Your task to perform on an android device: What is the capital of Norway? Image 0: 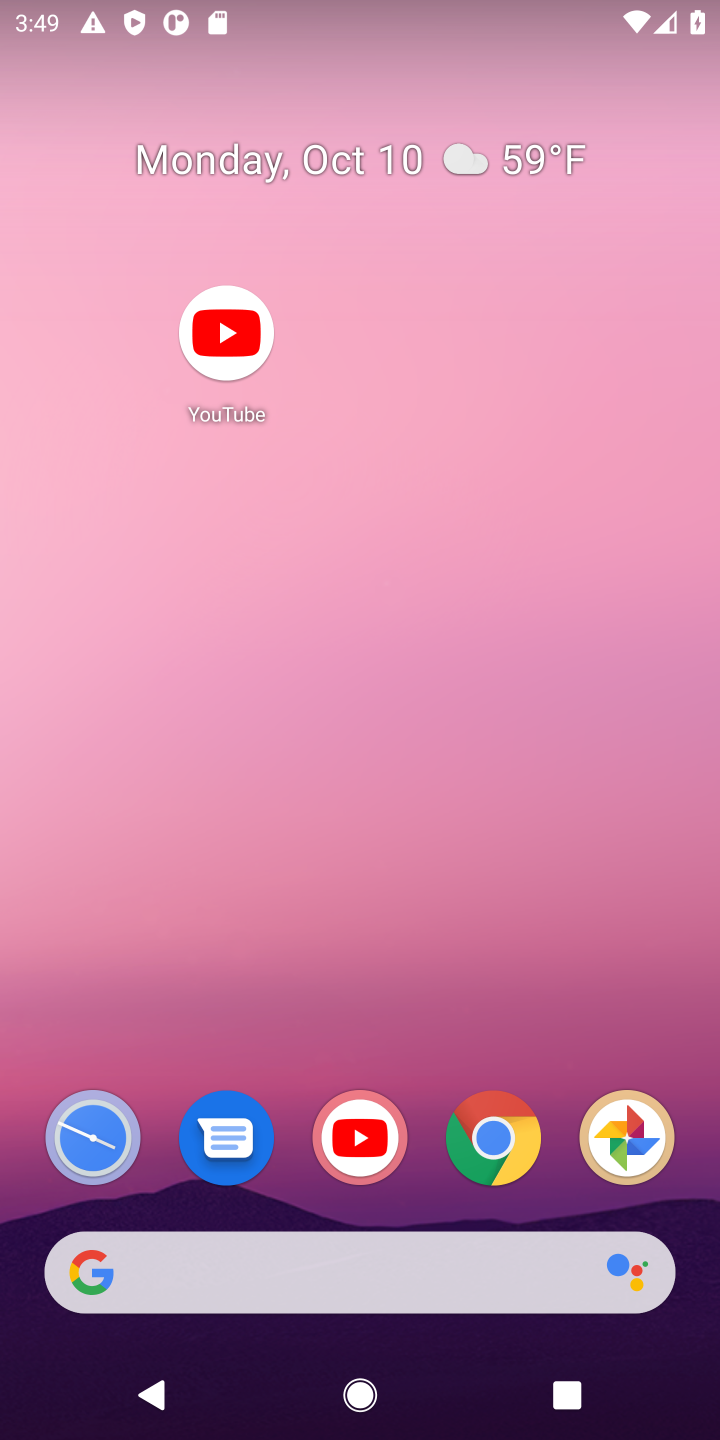
Step 0: drag from (406, 926) to (387, 153)
Your task to perform on an android device: What is the capital of Norway? Image 1: 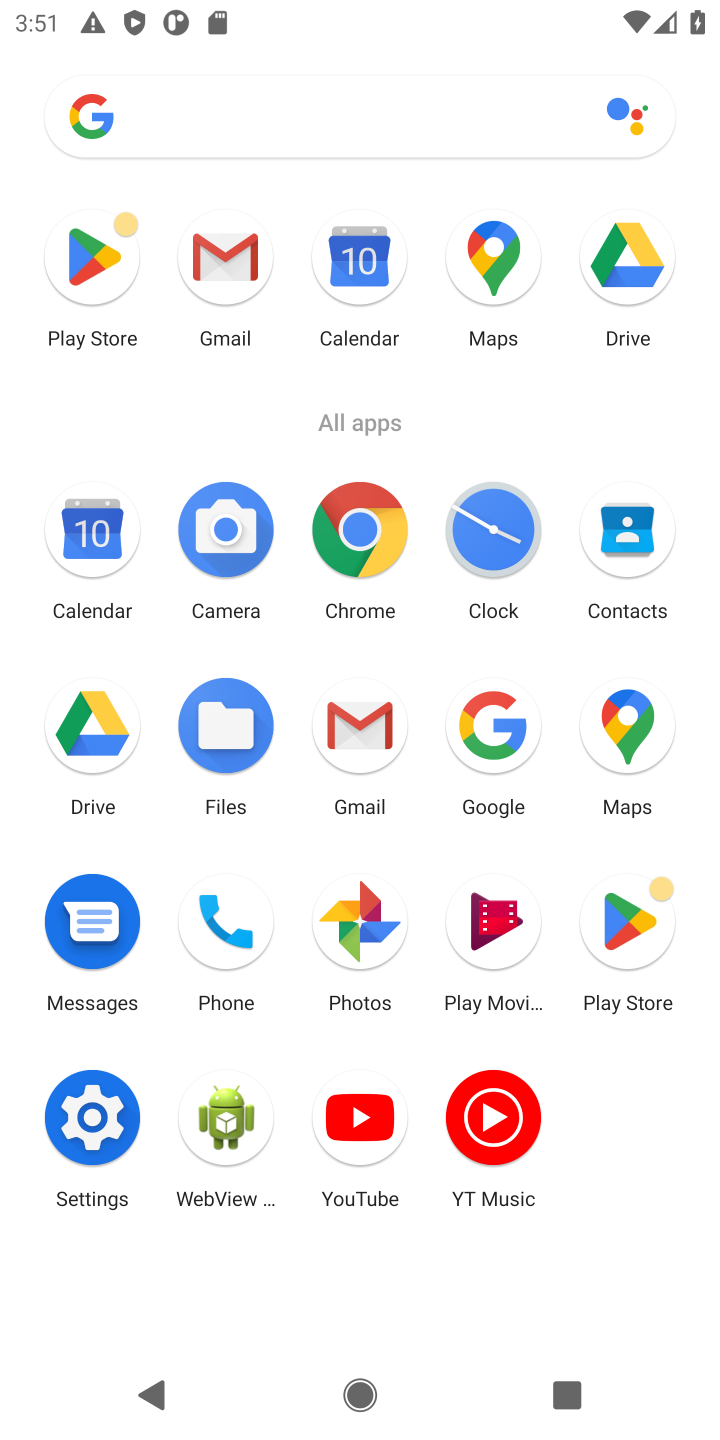
Step 1: click (356, 508)
Your task to perform on an android device: What is the capital of Norway? Image 2: 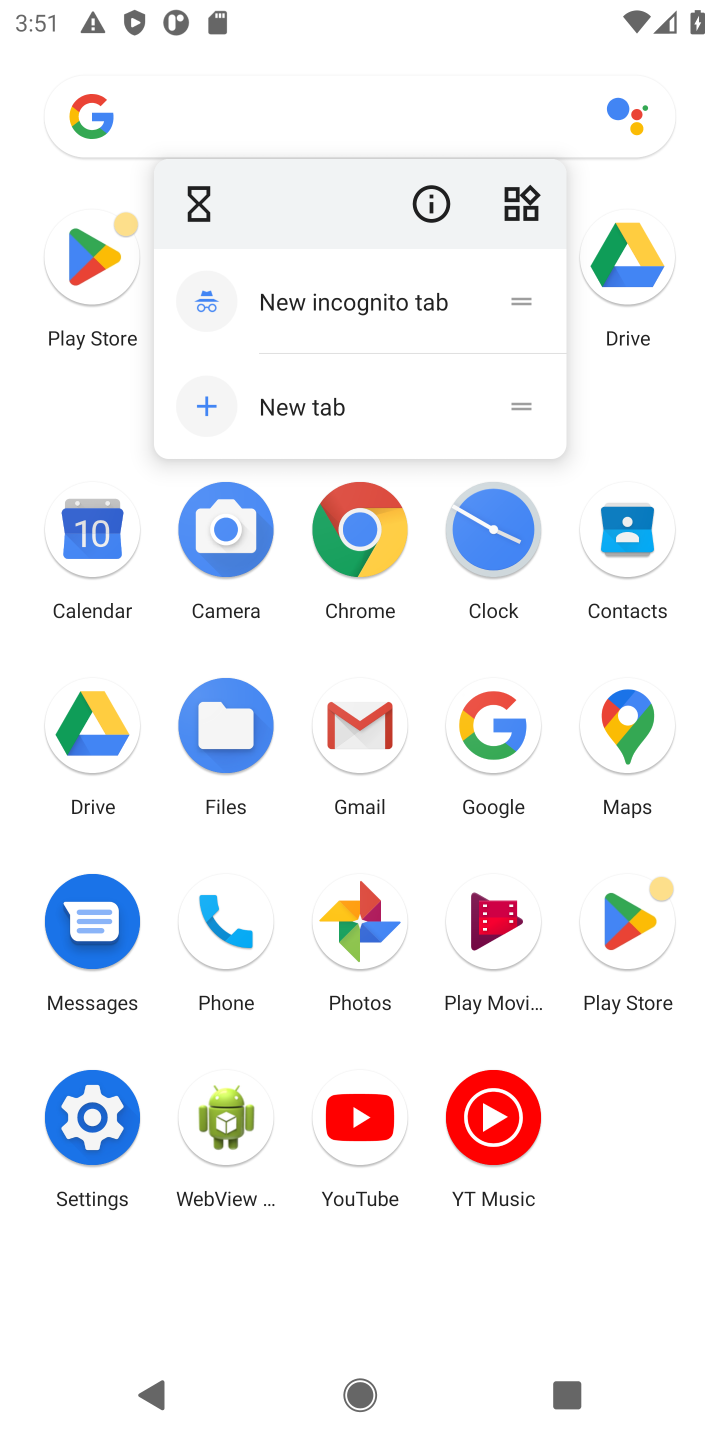
Step 2: click (356, 526)
Your task to perform on an android device: What is the capital of Norway? Image 3: 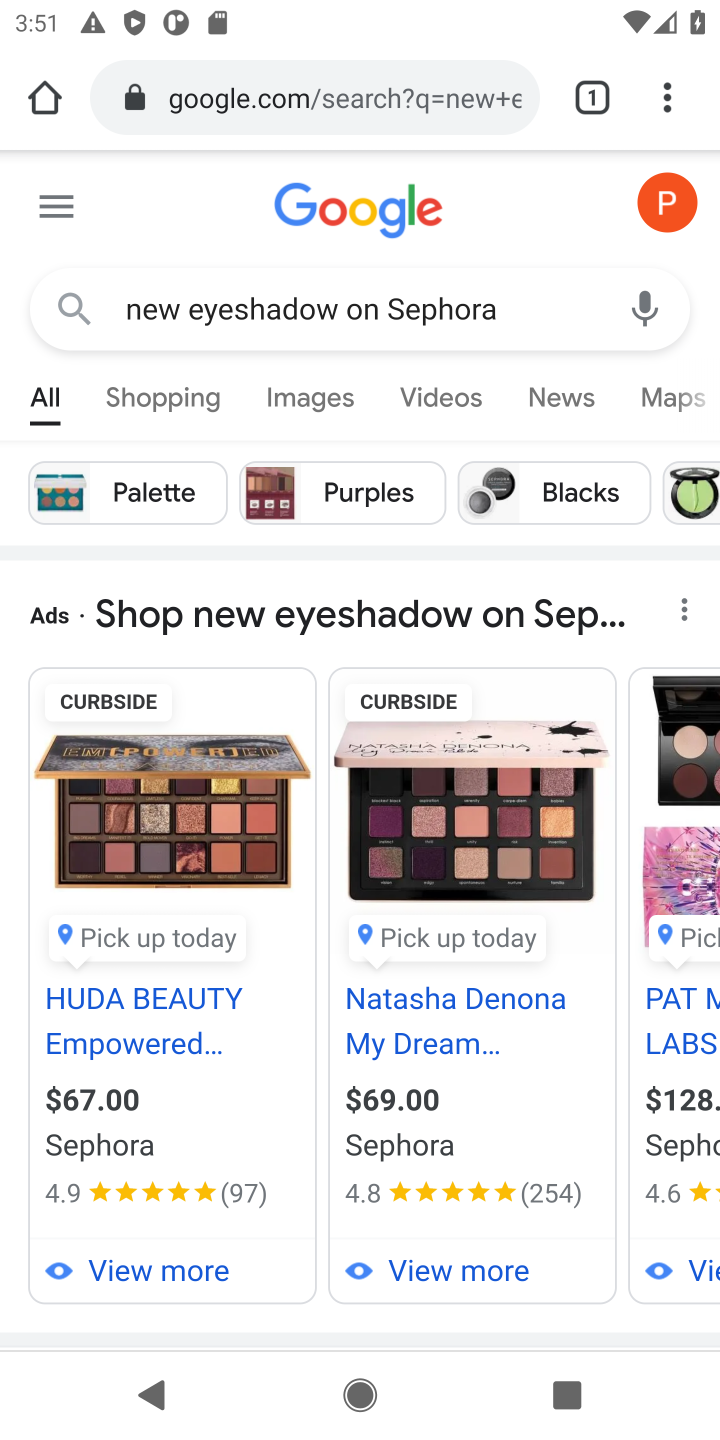
Step 3: click (290, 88)
Your task to perform on an android device: What is the capital of Norway? Image 4: 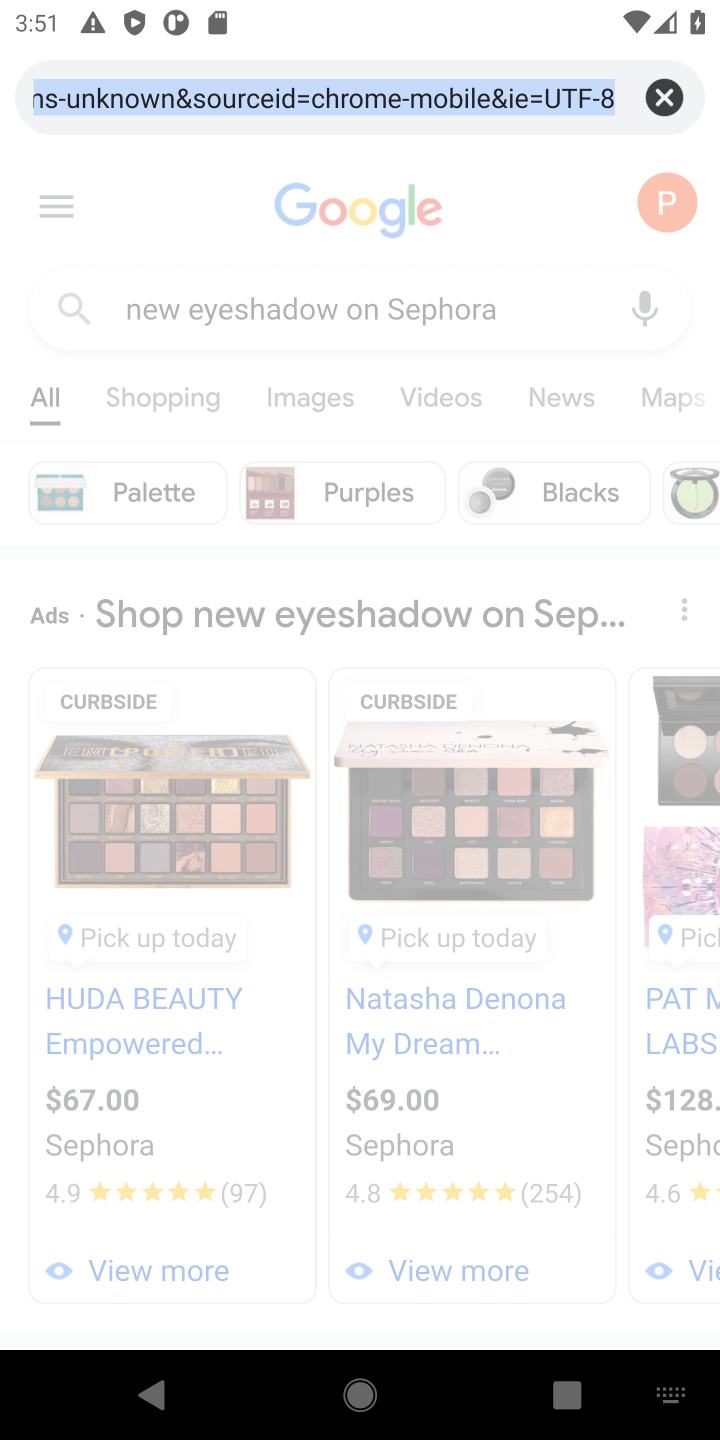
Step 4: click (660, 99)
Your task to perform on an android device: What is the capital of Norway? Image 5: 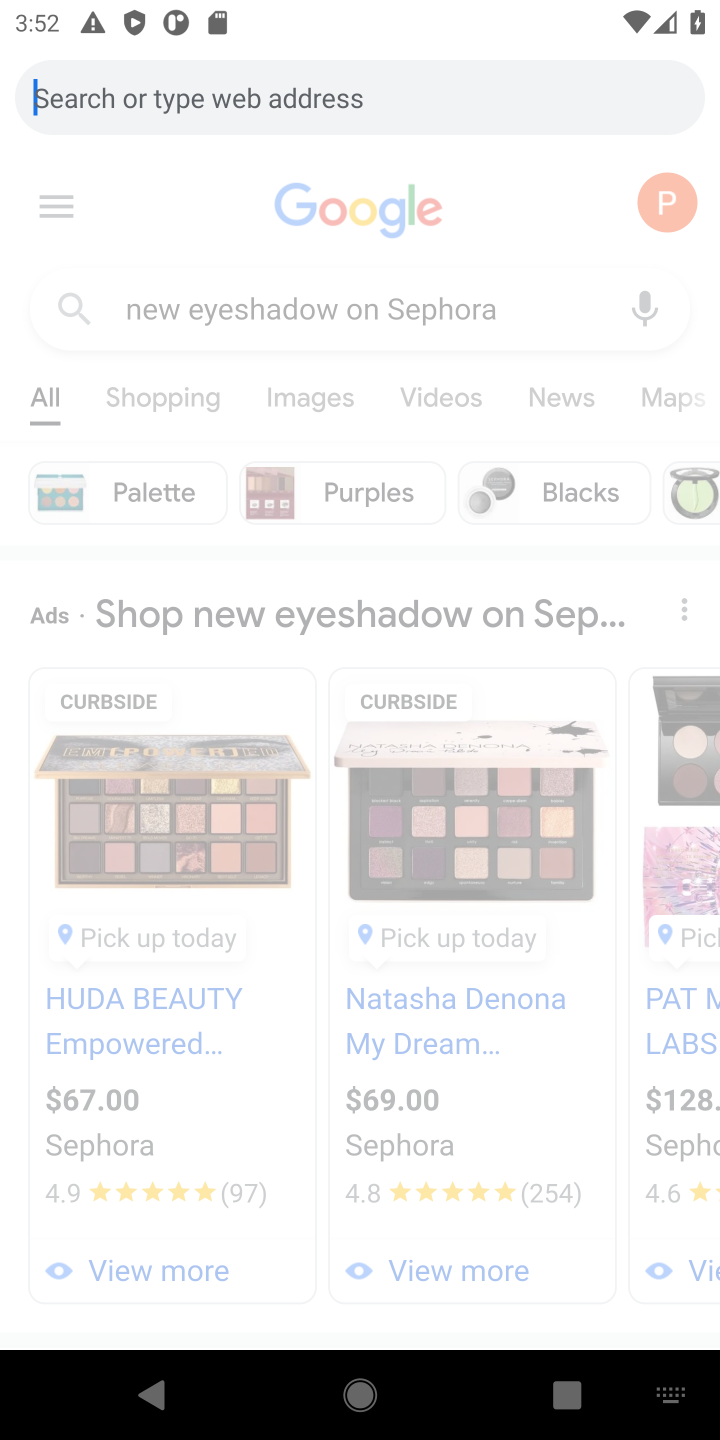
Step 5: type "What is the capital of Norway?"
Your task to perform on an android device: What is the capital of Norway? Image 6: 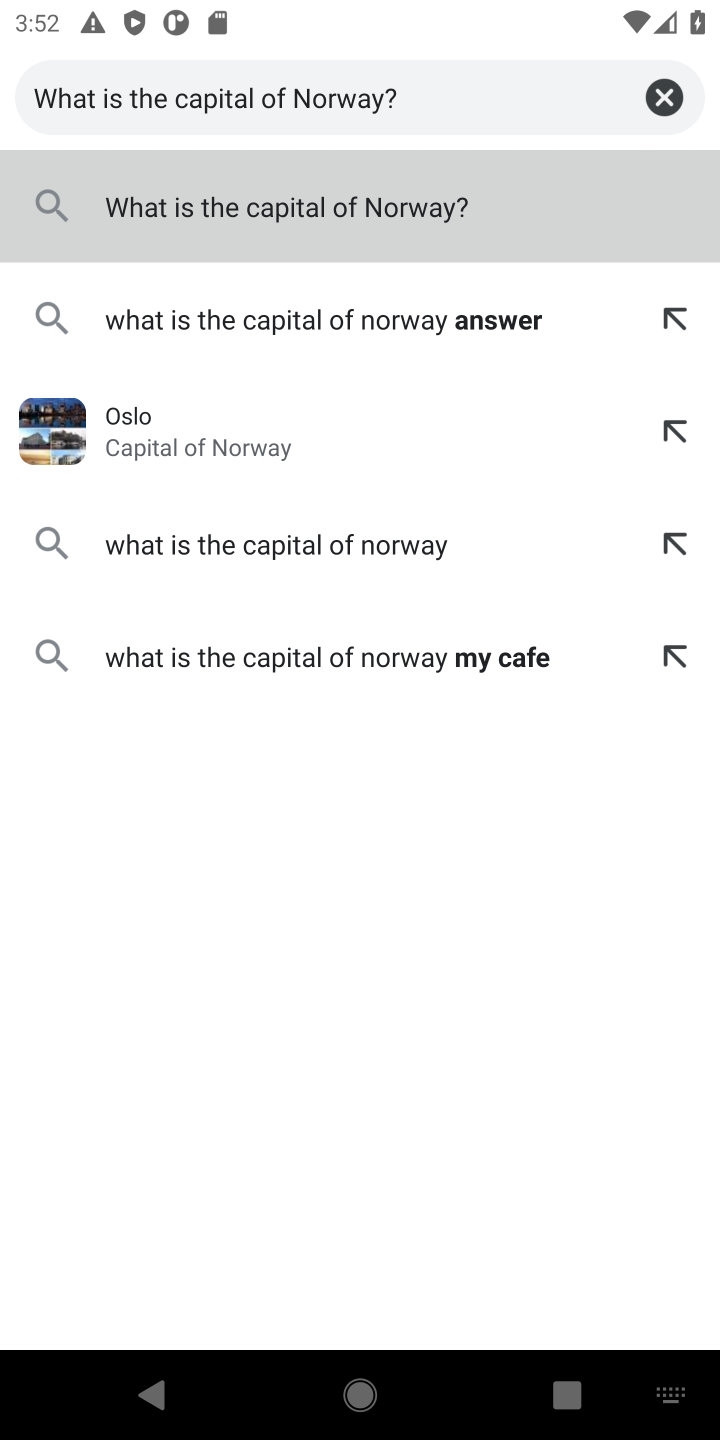
Step 6: press enter
Your task to perform on an android device: What is the capital of Norway? Image 7: 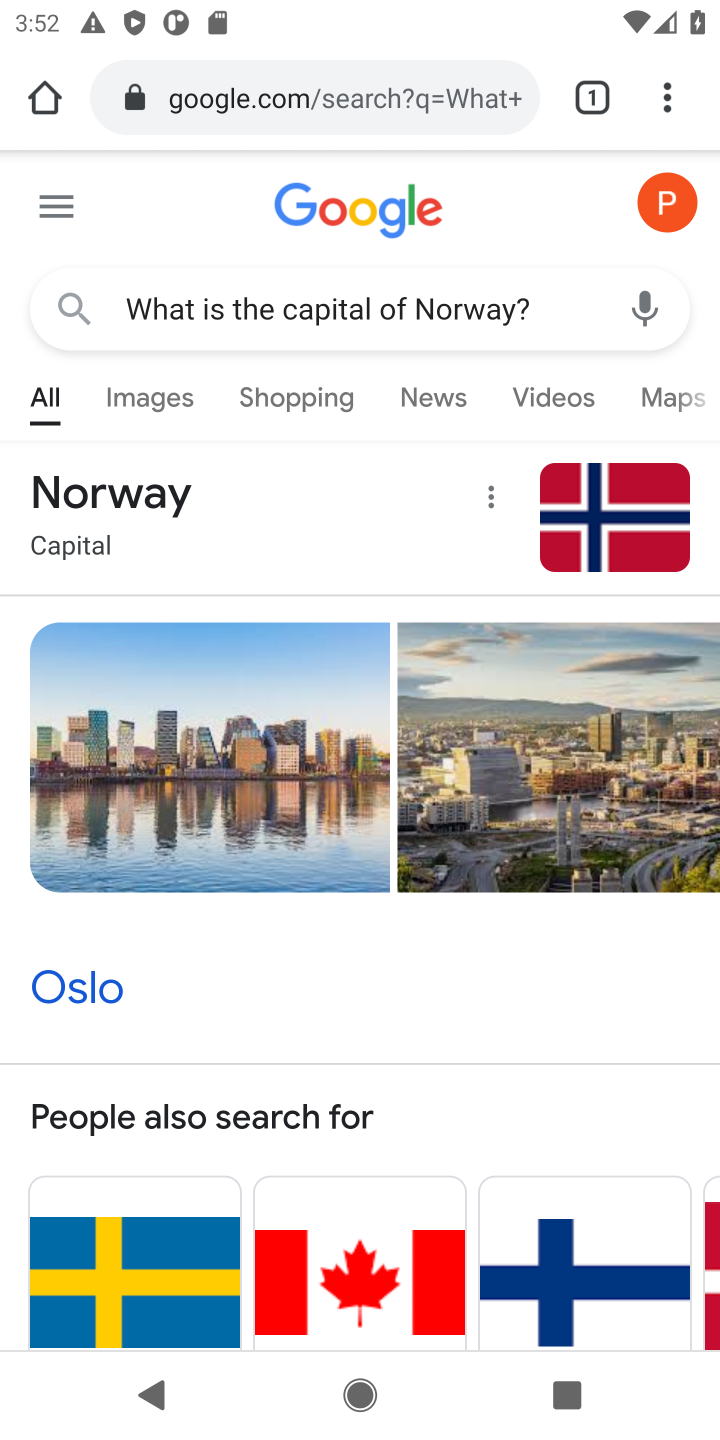
Step 7: task complete